Your task to perform on an android device: Search for logitech g502 on bestbuy, select the first entry, and add it to the cart. Image 0: 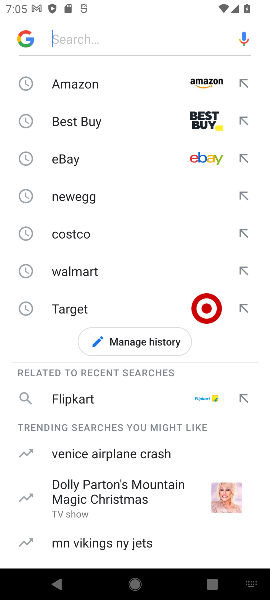
Step 0: click (123, 119)
Your task to perform on an android device: Search for logitech g502 on bestbuy, select the first entry, and add it to the cart. Image 1: 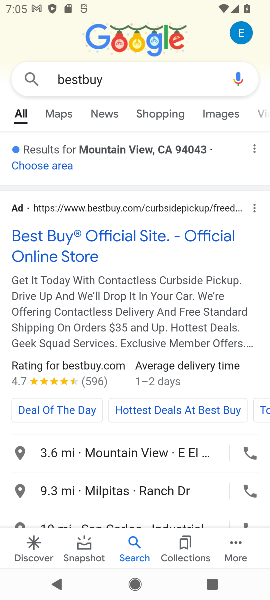
Step 1: click (111, 232)
Your task to perform on an android device: Search for logitech g502 on bestbuy, select the first entry, and add it to the cart. Image 2: 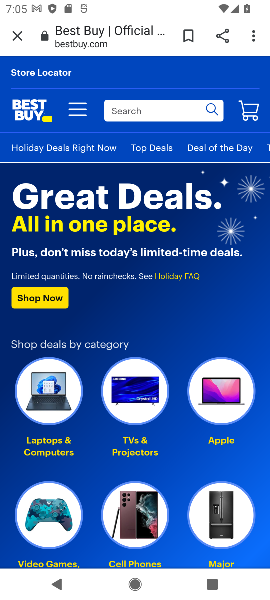
Step 2: click (161, 109)
Your task to perform on an android device: Search for logitech g502 on bestbuy, select the first entry, and add it to the cart. Image 3: 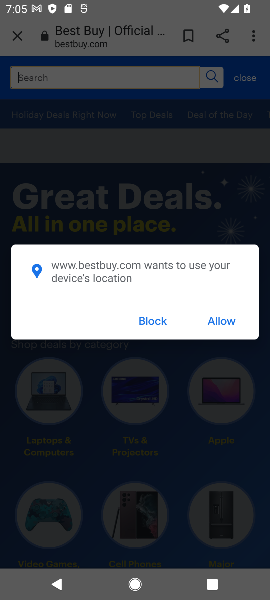
Step 3: type "logitech g502"
Your task to perform on an android device: Search for logitech g502 on bestbuy, select the first entry, and add it to the cart. Image 4: 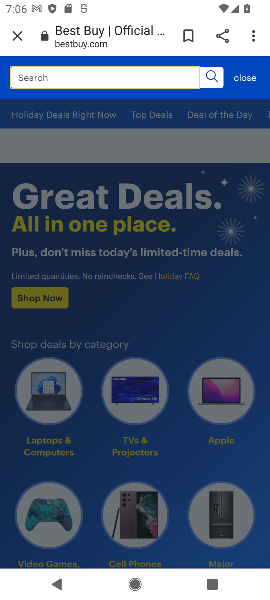
Step 4: type "logitech gpro"
Your task to perform on an android device: Search for logitech g502 on bestbuy, select the first entry, and add it to the cart. Image 5: 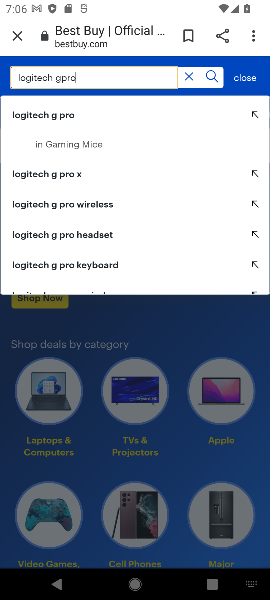
Step 5: click (96, 116)
Your task to perform on an android device: Search for logitech g502 on bestbuy, select the first entry, and add it to the cart. Image 6: 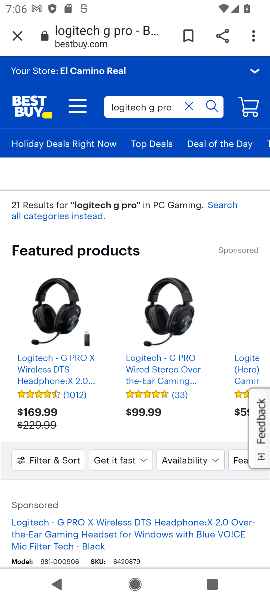
Step 6: click (44, 323)
Your task to perform on an android device: Search for logitech g502 on bestbuy, select the first entry, and add it to the cart. Image 7: 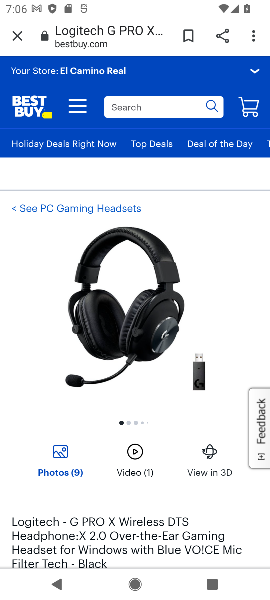
Step 7: task complete